Your task to perform on an android device: delete a single message in the gmail app Image 0: 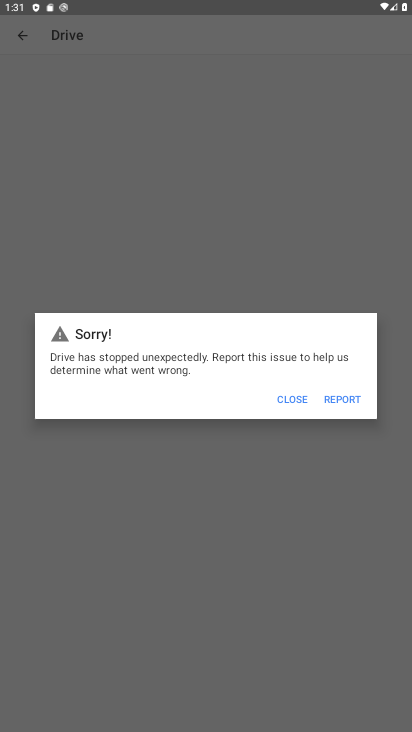
Step 0: press home button
Your task to perform on an android device: delete a single message in the gmail app Image 1: 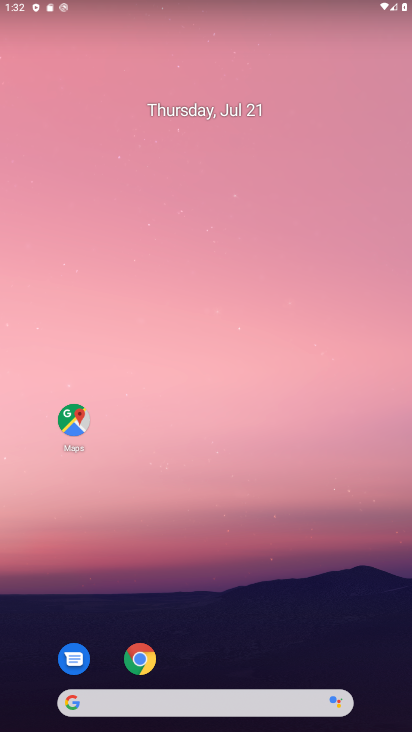
Step 1: drag from (198, 693) to (157, 195)
Your task to perform on an android device: delete a single message in the gmail app Image 2: 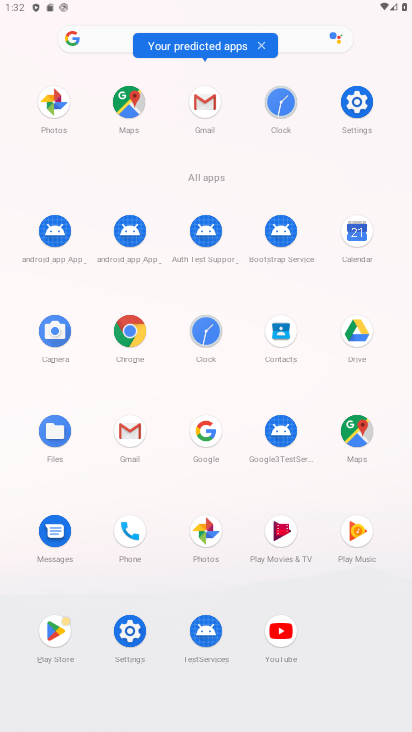
Step 2: click (127, 448)
Your task to perform on an android device: delete a single message in the gmail app Image 3: 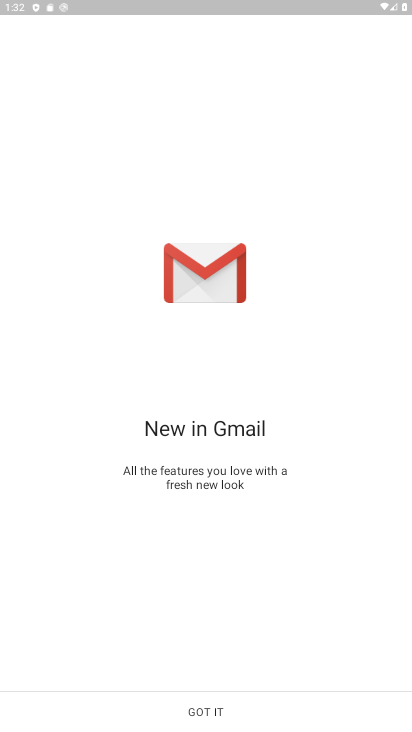
Step 3: click (210, 709)
Your task to perform on an android device: delete a single message in the gmail app Image 4: 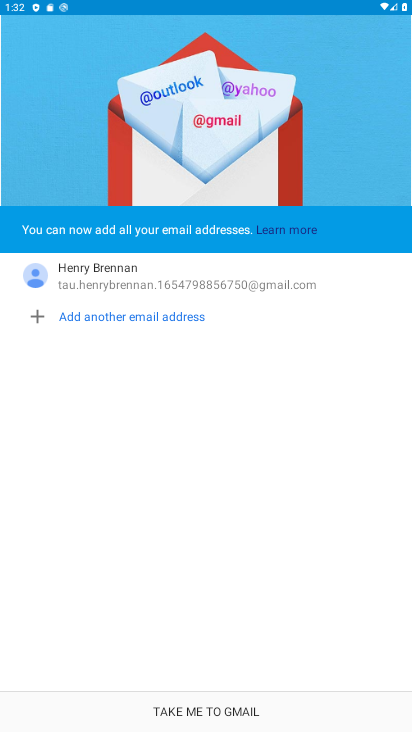
Step 4: click (233, 705)
Your task to perform on an android device: delete a single message in the gmail app Image 5: 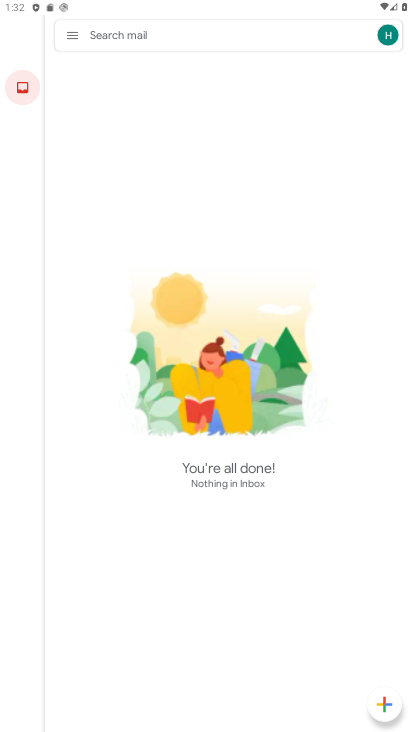
Step 5: click (65, 35)
Your task to perform on an android device: delete a single message in the gmail app Image 6: 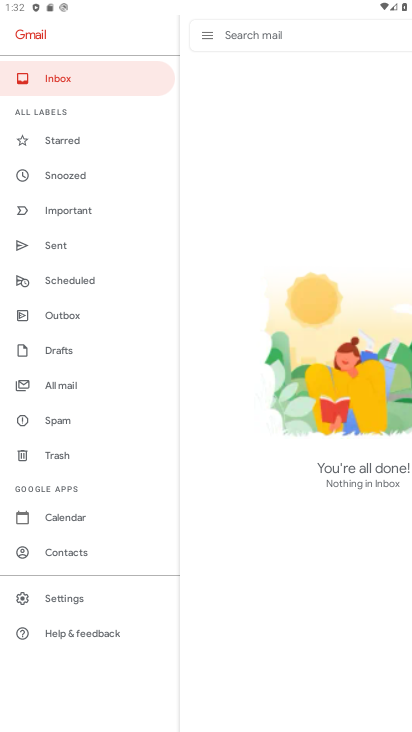
Step 6: click (68, 389)
Your task to perform on an android device: delete a single message in the gmail app Image 7: 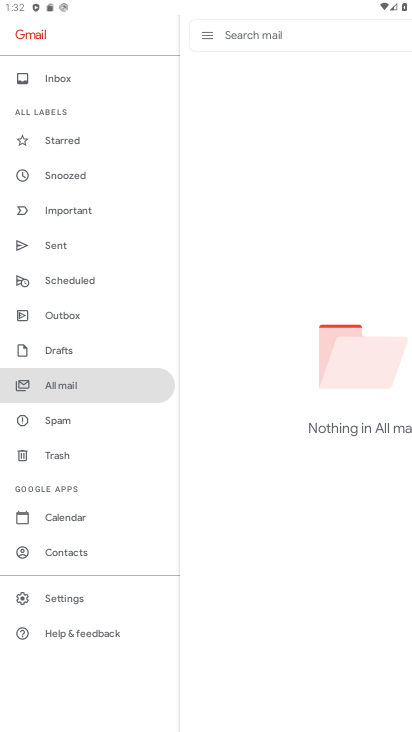
Step 7: task complete